Your task to perform on an android device: empty trash in google photos Image 0: 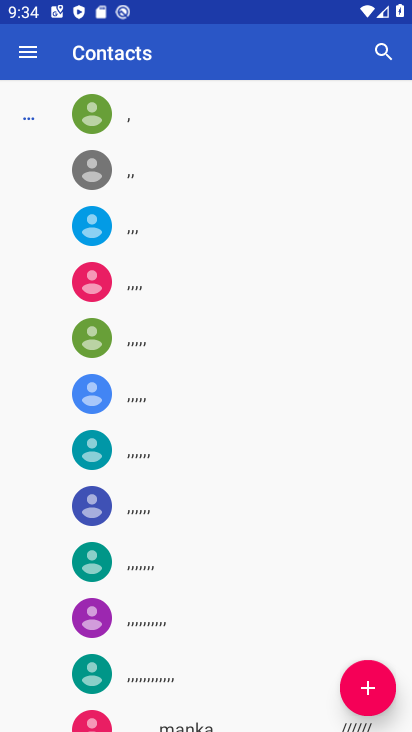
Step 0: press home button
Your task to perform on an android device: empty trash in google photos Image 1: 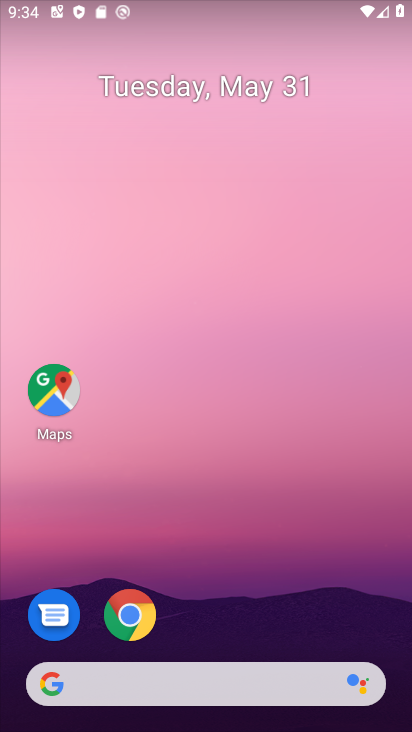
Step 1: drag from (364, 627) to (290, 72)
Your task to perform on an android device: empty trash in google photos Image 2: 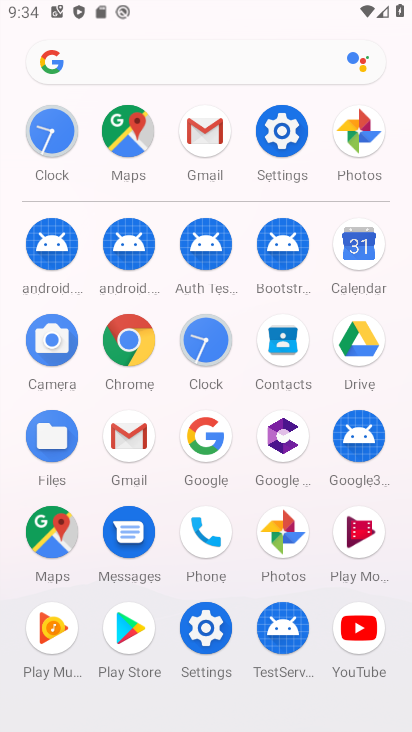
Step 2: click (282, 527)
Your task to perform on an android device: empty trash in google photos Image 3: 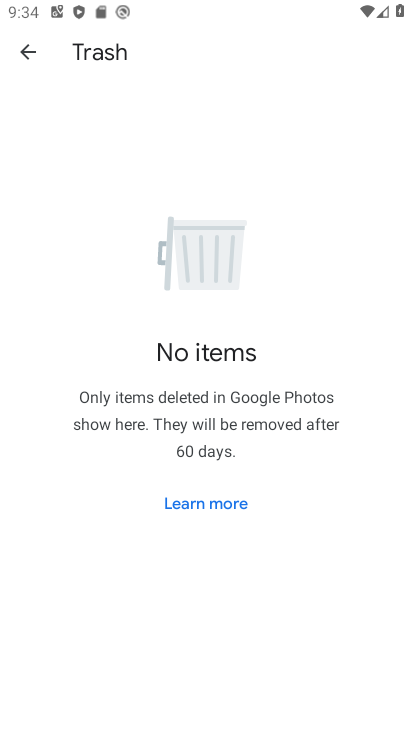
Step 3: press back button
Your task to perform on an android device: empty trash in google photos Image 4: 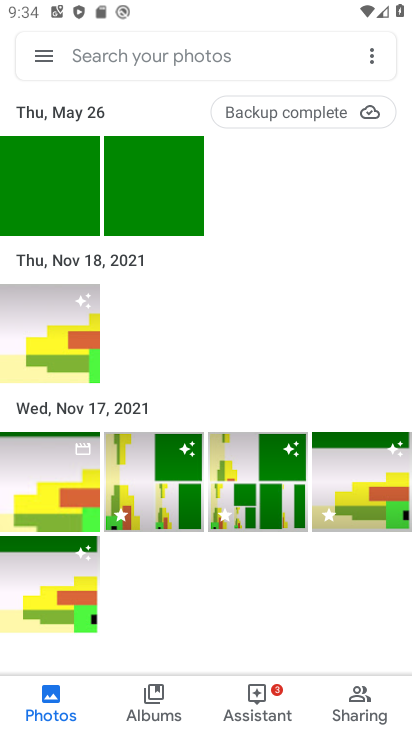
Step 4: click (42, 60)
Your task to perform on an android device: empty trash in google photos Image 5: 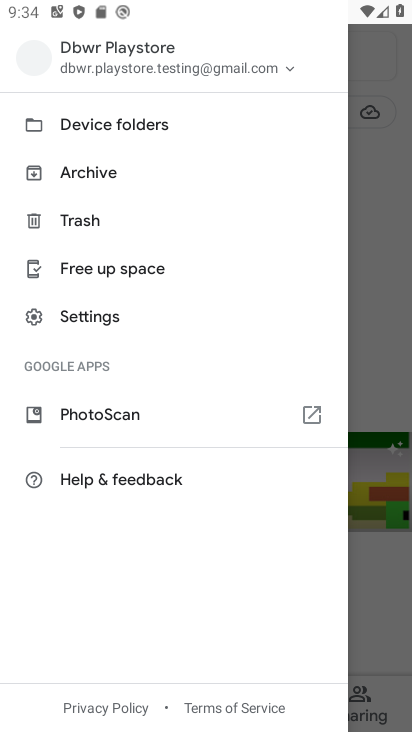
Step 5: click (87, 227)
Your task to perform on an android device: empty trash in google photos Image 6: 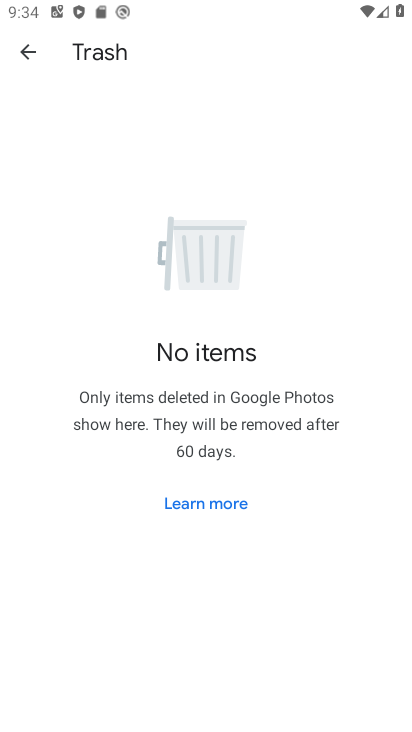
Step 6: task complete